Your task to perform on an android device: toggle notification dots Image 0: 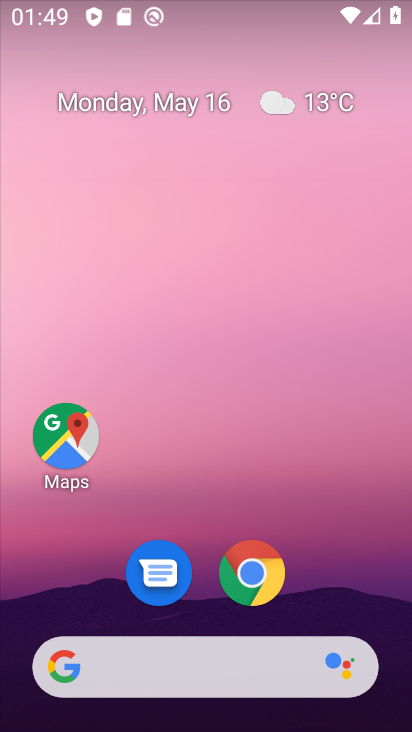
Step 0: drag from (210, 588) to (190, 4)
Your task to perform on an android device: toggle notification dots Image 1: 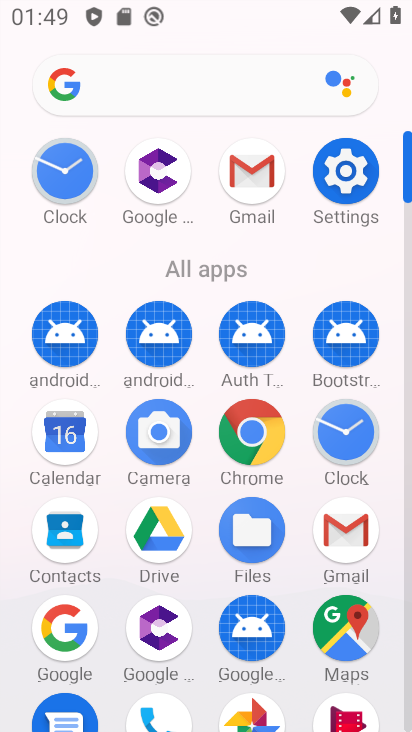
Step 1: click (374, 190)
Your task to perform on an android device: toggle notification dots Image 2: 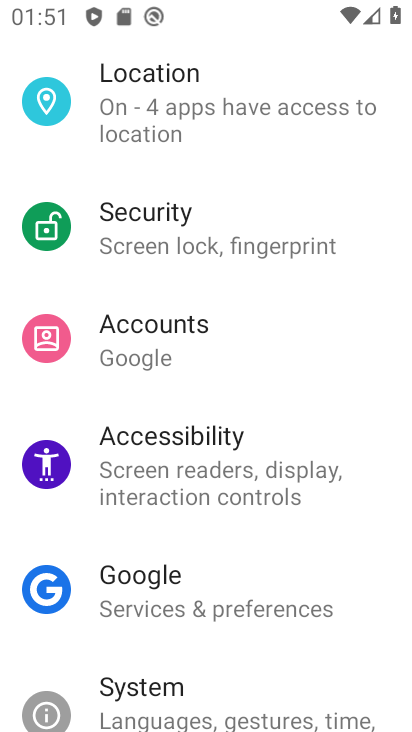
Step 2: drag from (306, 208) to (133, 713)
Your task to perform on an android device: toggle notification dots Image 3: 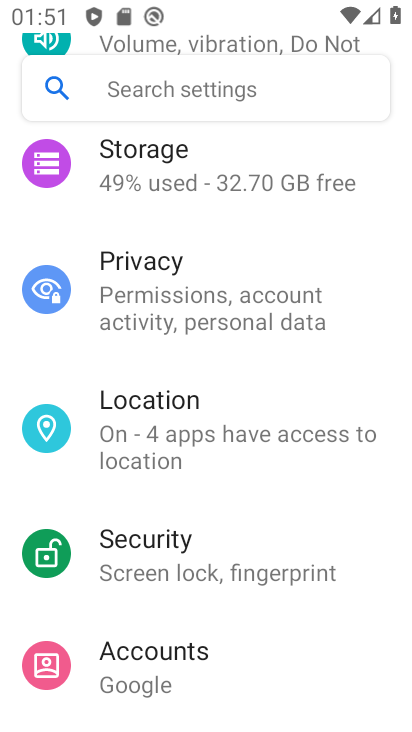
Step 3: drag from (211, 445) to (180, 5)
Your task to perform on an android device: toggle notification dots Image 4: 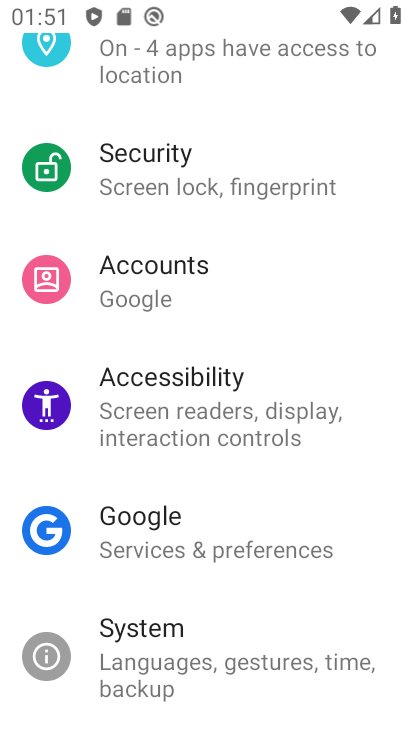
Step 4: drag from (248, 475) to (219, 222)
Your task to perform on an android device: toggle notification dots Image 5: 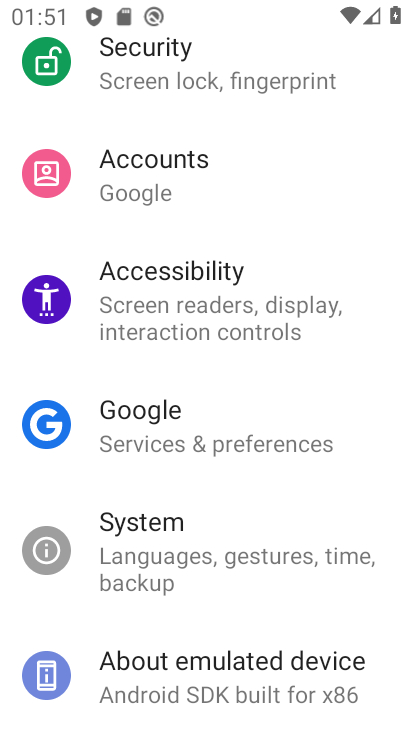
Step 5: drag from (219, 222) to (249, 720)
Your task to perform on an android device: toggle notification dots Image 6: 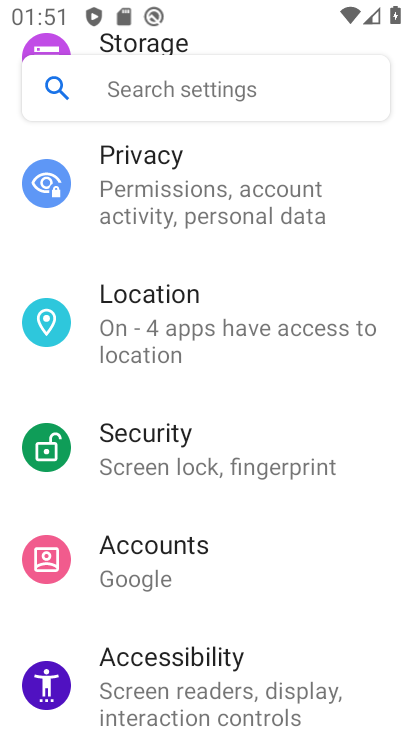
Step 6: drag from (193, 219) to (236, 682)
Your task to perform on an android device: toggle notification dots Image 7: 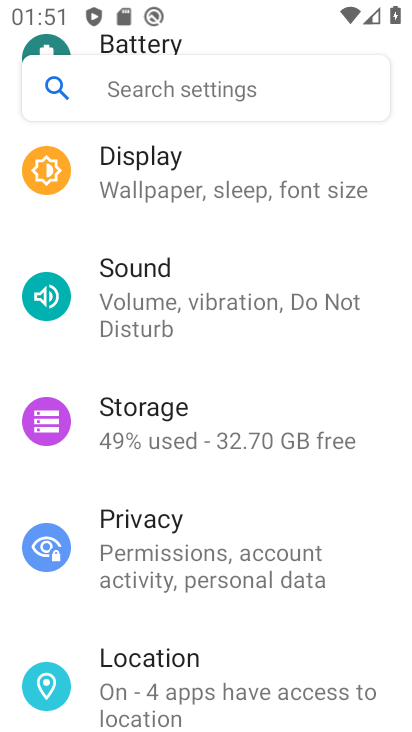
Step 7: drag from (139, 161) to (193, 620)
Your task to perform on an android device: toggle notification dots Image 8: 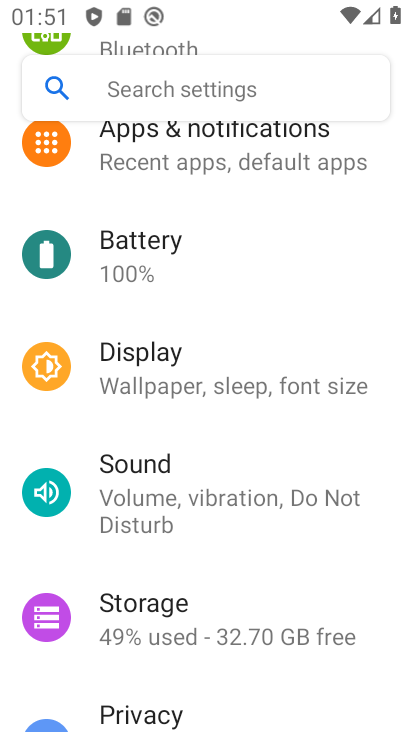
Step 8: click (231, 198)
Your task to perform on an android device: toggle notification dots Image 9: 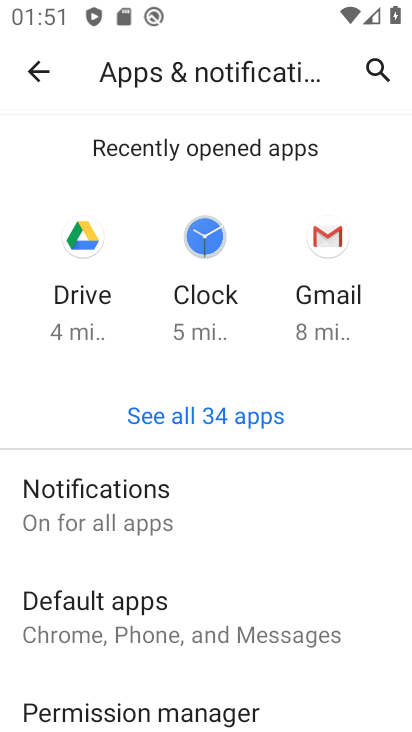
Step 9: drag from (127, 699) to (216, 97)
Your task to perform on an android device: toggle notification dots Image 10: 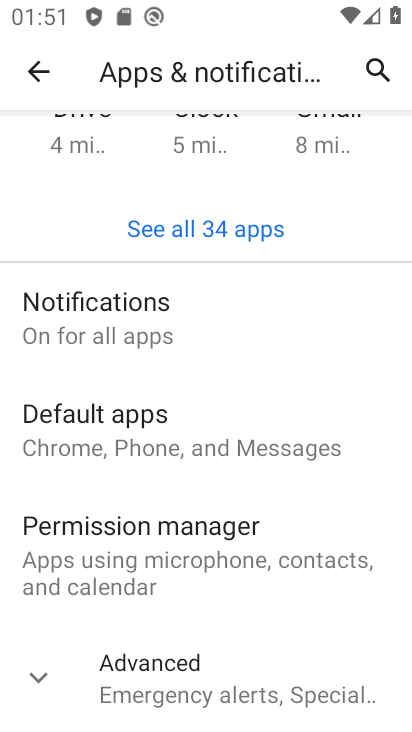
Step 10: click (190, 668)
Your task to perform on an android device: toggle notification dots Image 11: 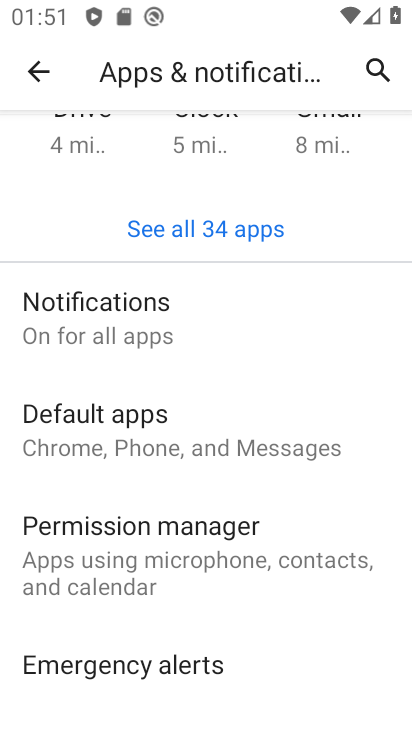
Step 11: click (135, 322)
Your task to perform on an android device: toggle notification dots Image 12: 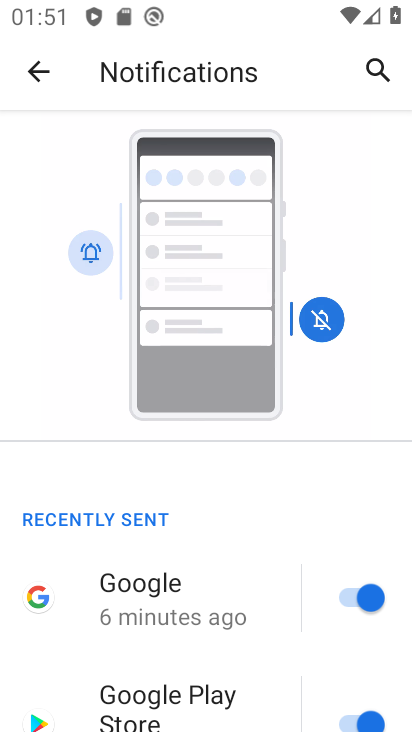
Step 12: click (222, 30)
Your task to perform on an android device: toggle notification dots Image 13: 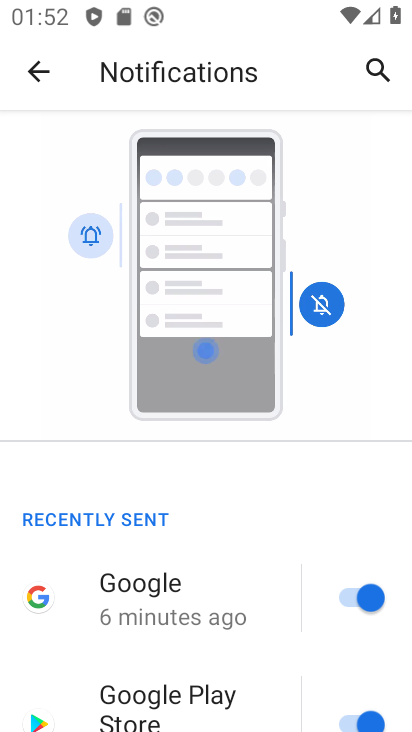
Step 13: drag from (142, 622) to (114, 60)
Your task to perform on an android device: toggle notification dots Image 14: 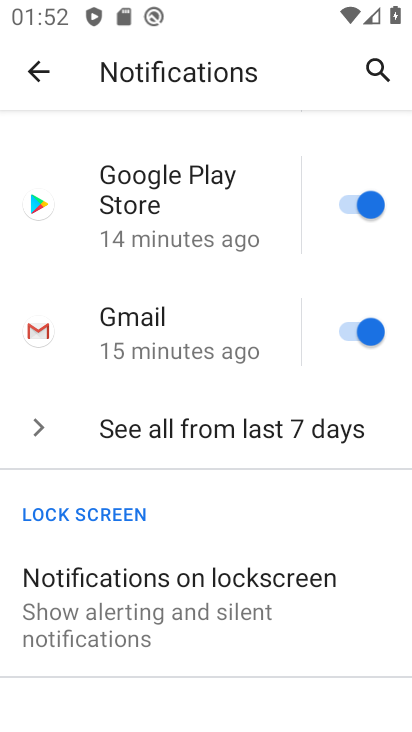
Step 14: drag from (121, 610) to (79, 151)
Your task to perform on an android device: toggle notification dots Image 15: 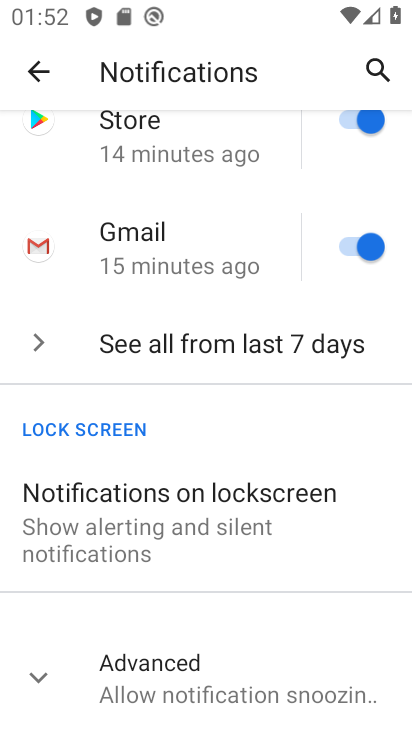
Step 15: click (170, 676)
Your task to perform on an android device: toggle notification dots Image 16: 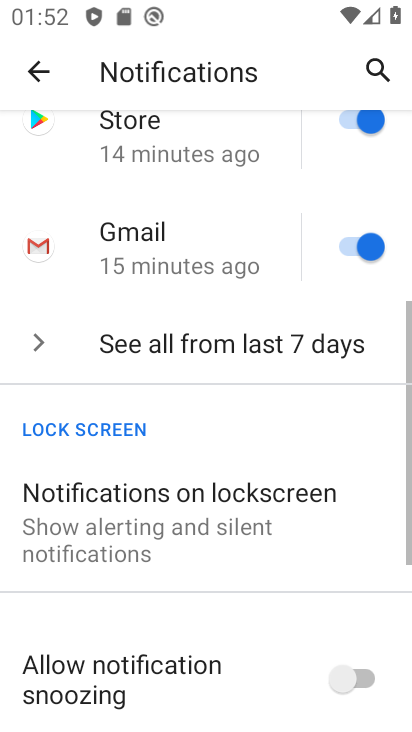
Step 16: drag from (170, 676) to (191, 131)
Your task to perform on an android device: toggle notification dots Image 17: 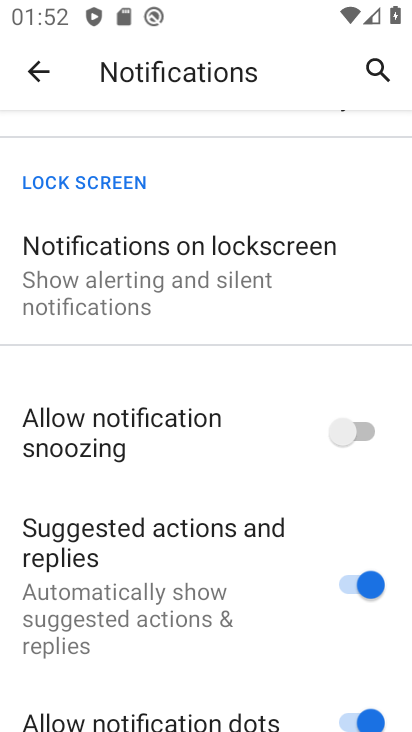
Step 17: click (108, 22)
Your task to perform on an android device: toggle notification dots Image 18: 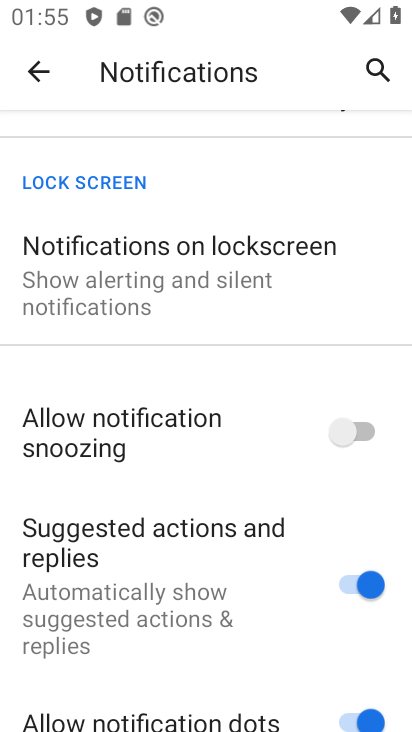
Step 18: task complete